Your task to perform on an android device: Go to battery settings Image 0: 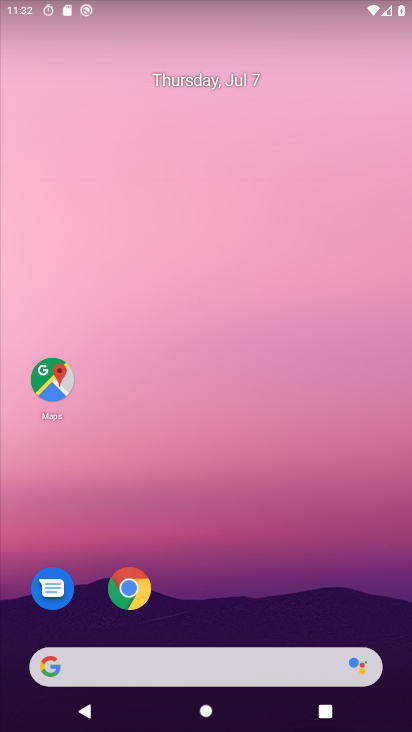
Step 0: drag from (176, 659) to (404, 7)
Your task to perform on an android device: Go to battery settings Image 1: 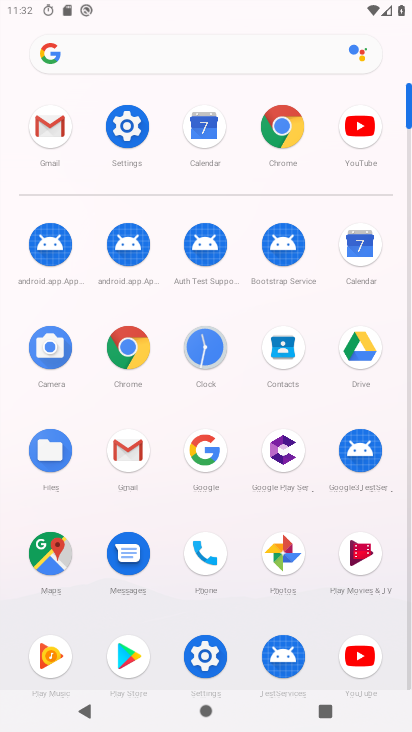
Step 1: click (120, 122)
Your task to perform on an android device: Go to battery settings Image 2: 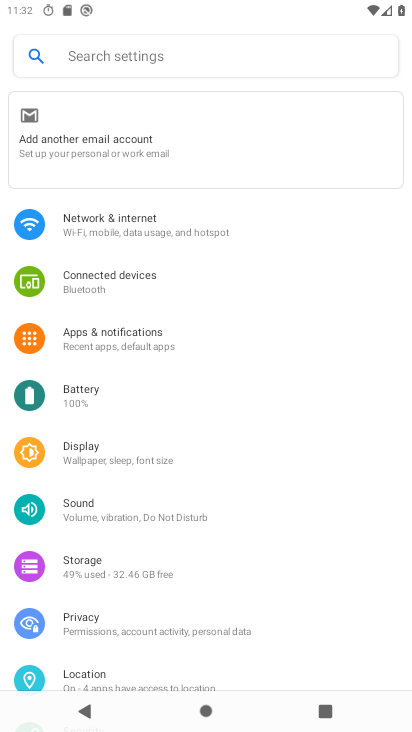
Step 2: click (81, 392)
Your task to perform on an android device: Go to battery settings Image 3: 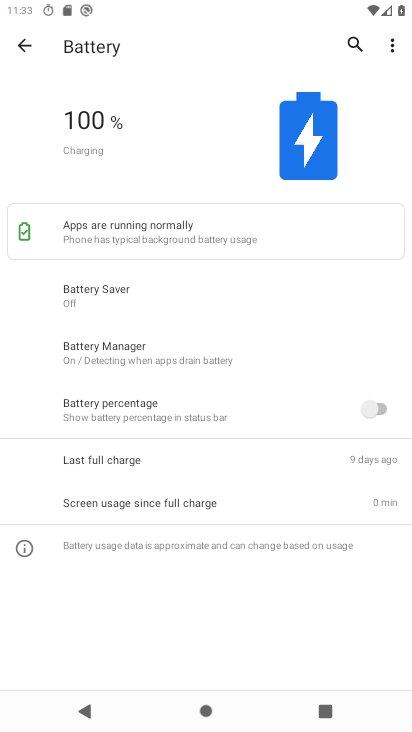
Step 3: task complete